Your task to perform on an android device: change the upload size in google photos Image 0: 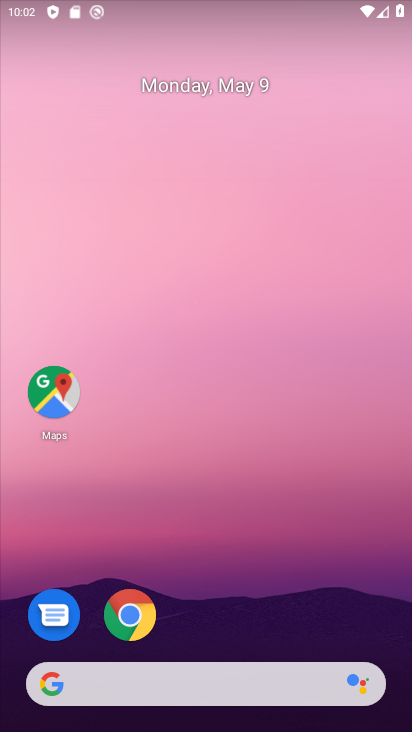
Step 0: drag from (201, 620) to (240, 177)
Your task to perform on an android device: change the upload size in google photos Image 1: 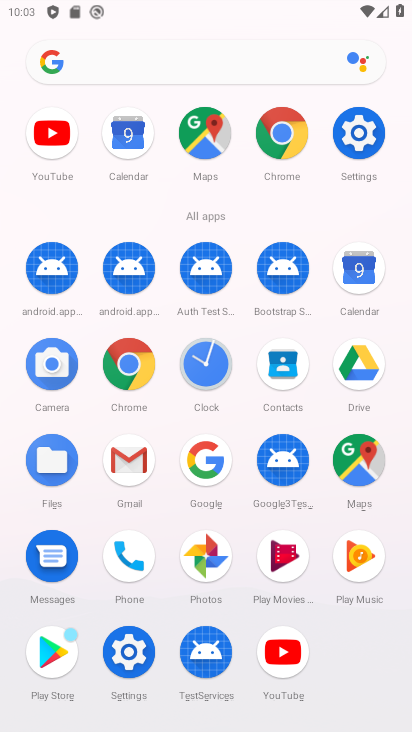
Step 1: click (208, 559)
Your task to perform on an android device: change the upload size in google photos Image 2: 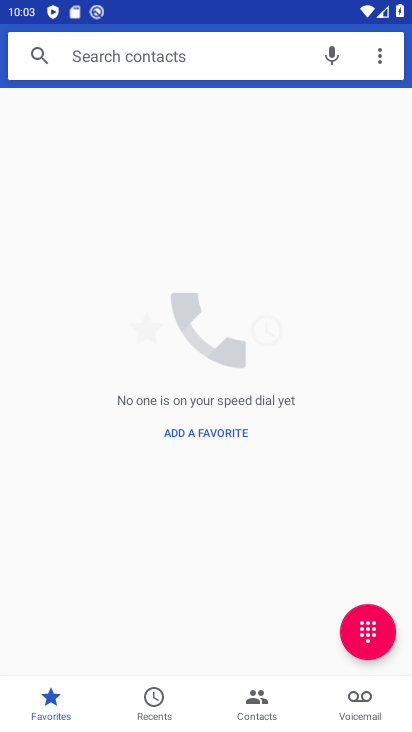
Step 2: press home button
Your task to perform on an android device: change the upload size in google photos Image 3: 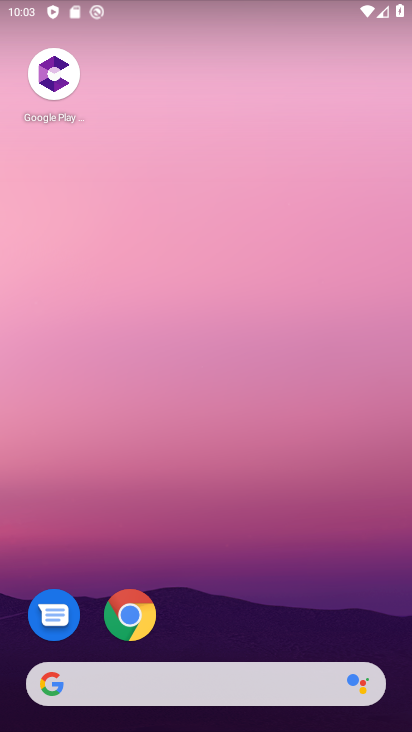
Step 3: drag from (169, 644) to (180, 236)
Your task to perform on an android device: change the upload size in google photos Image 4: 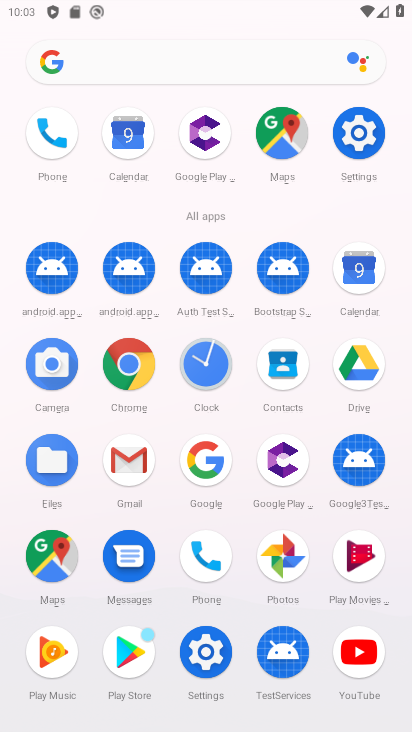
Step 4: click (287, 564)
Your task to perform on an android device: change the upload size in google photos Image 5: 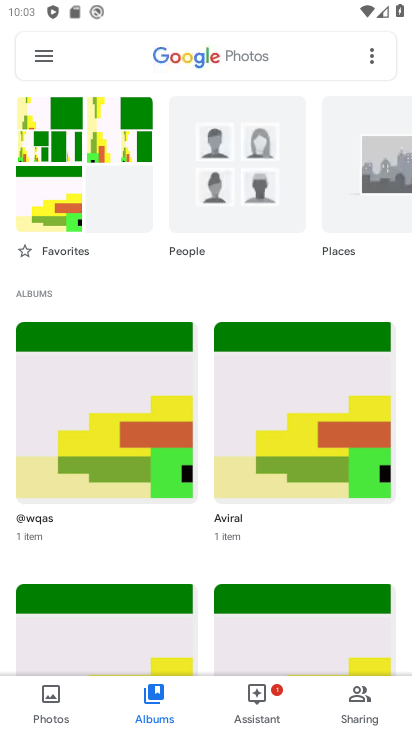
Step 5: click (41, 51)
Your task to perform on an android device: change the upload size in google photos Image 6: 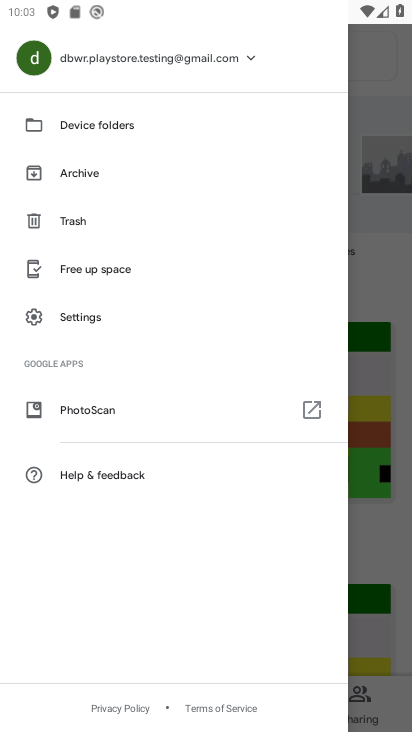
Step 6: click (80, 323)
Your task to perform on an android device: change the upload size in google photos Image 7: 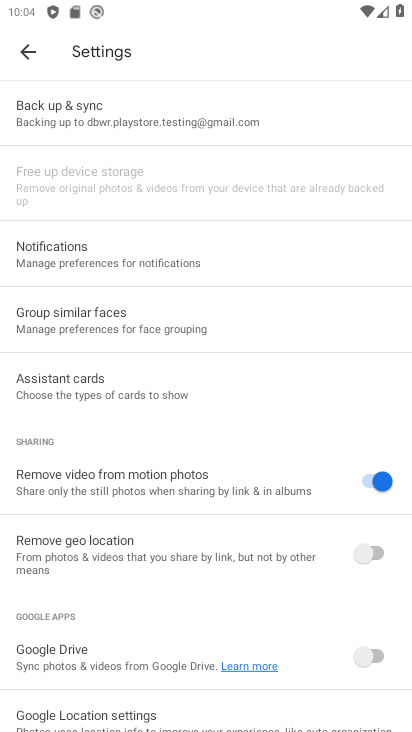
Step 7: click (153, 123)
Your task to perform on an android device: change the upload size in google photos Image 8: 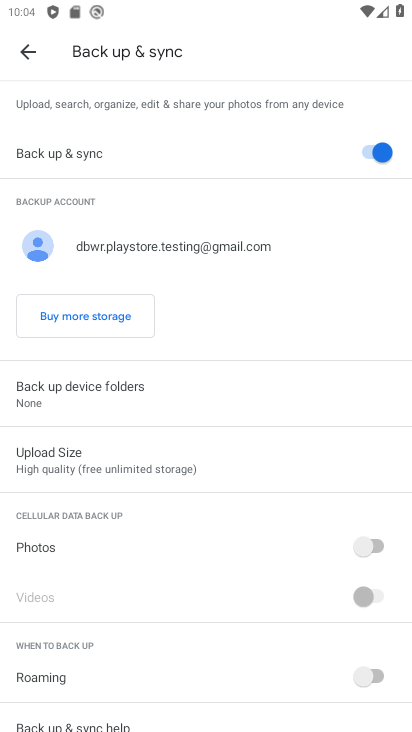
Step 8: click (93, 452)
Your task to perform on an android device: change the upload size in google photos Image 9: 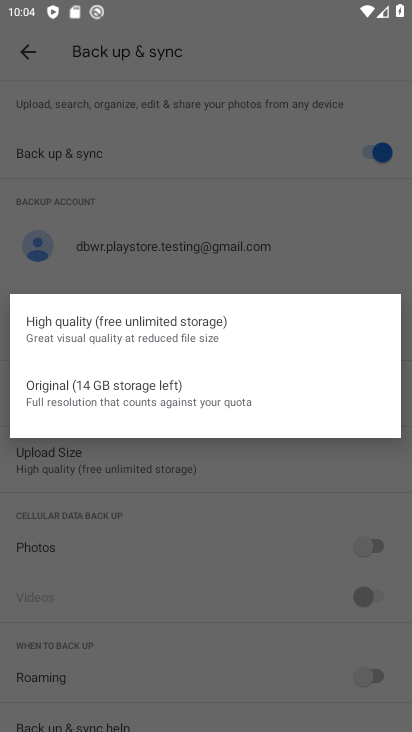
Step 9: click (143, 388)
Your task to perform on an android device: change the upload size in google photos Image 10: 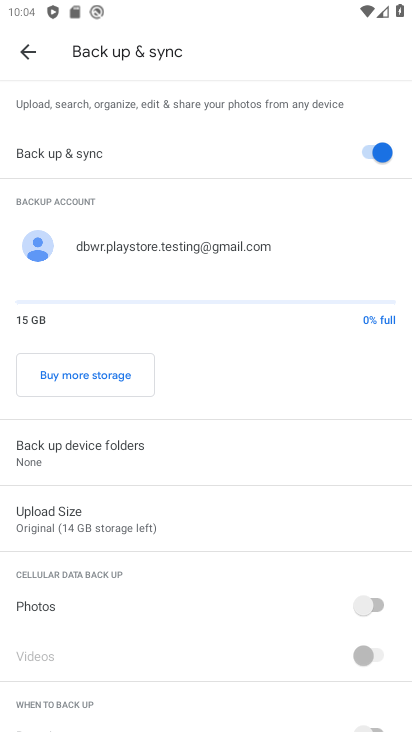
Step 10: task complete